Your task to perform on an android device: make emails show in primary in the gmail app Image 0: 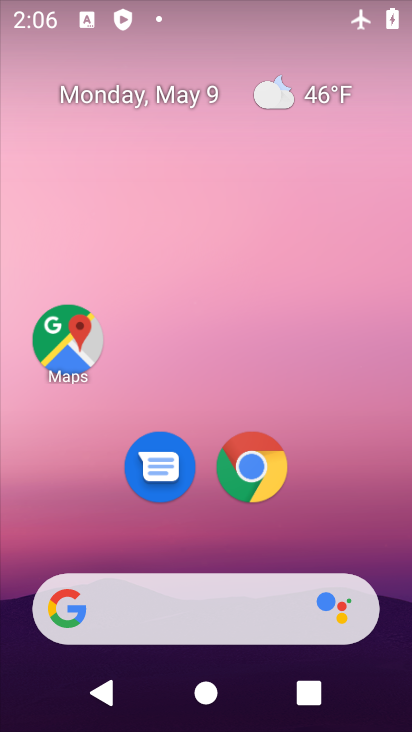
Step 0: drag from (226, 604) to (228, 387)
Your task to perform on an android device: make emails show in primary in the gmail app Image 1: 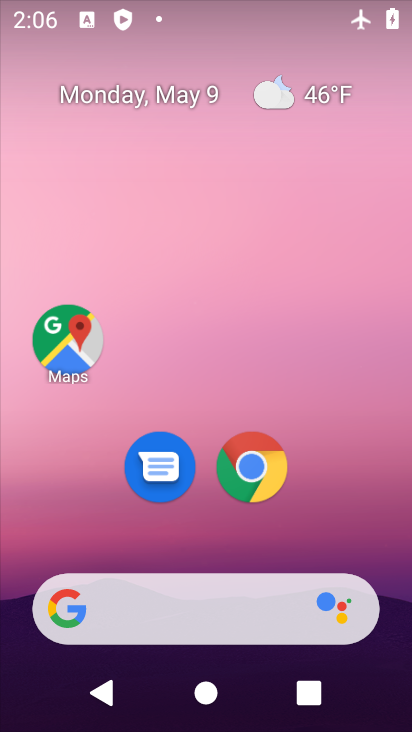
Step 1: drag from (273, 517) to (278, 257)
Your task to perform on an android device: make emails show in primary in the gmail app Image 2: 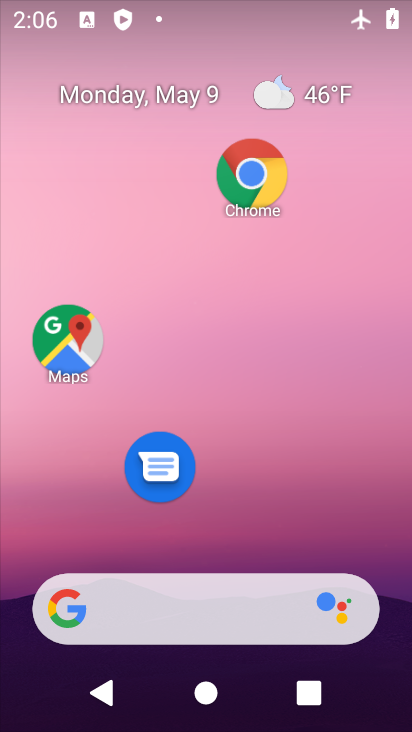
Step 2: drag from (254, 493) to (231, 205)
Your task to perform on an android device: make emails show in primary in the gmail app Image 3: 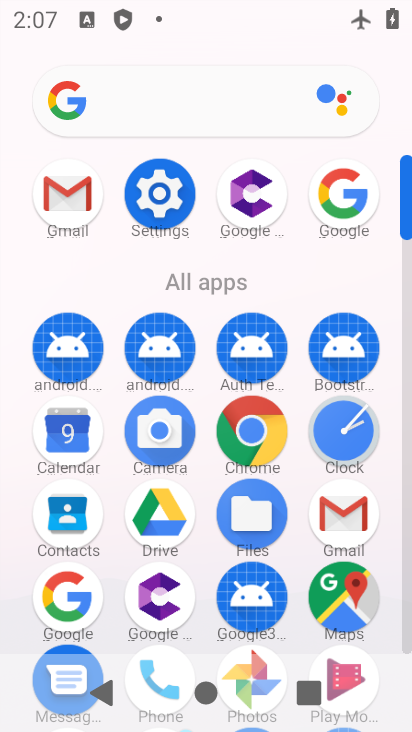
Step 3: click (350, 508)
Your task to perform on an android device: make emails show in primary in the gmail app Image 4: 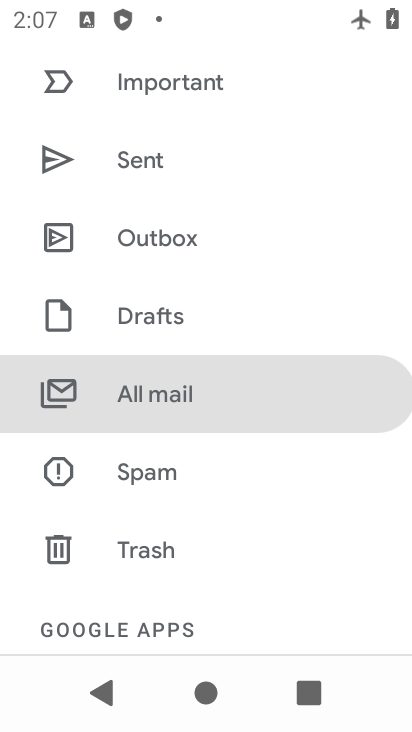
Step 4: task complete